Your task to perform on an android device: Go to Amazon Image 0: 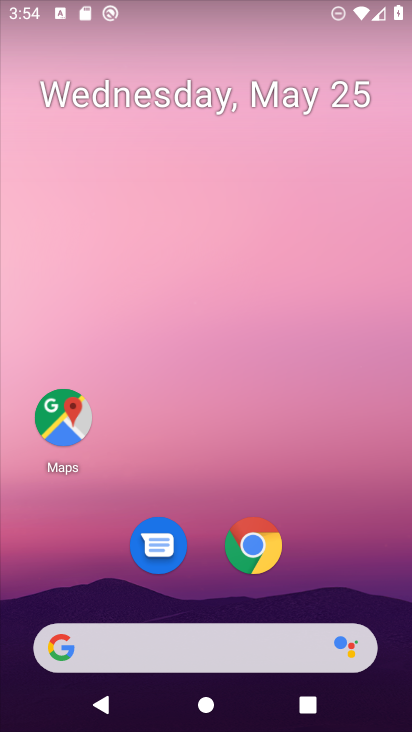
Step 0: drag from (351, 583) to (264, 196)
Your task to perform on an android device: Go to Amazon Image 1: 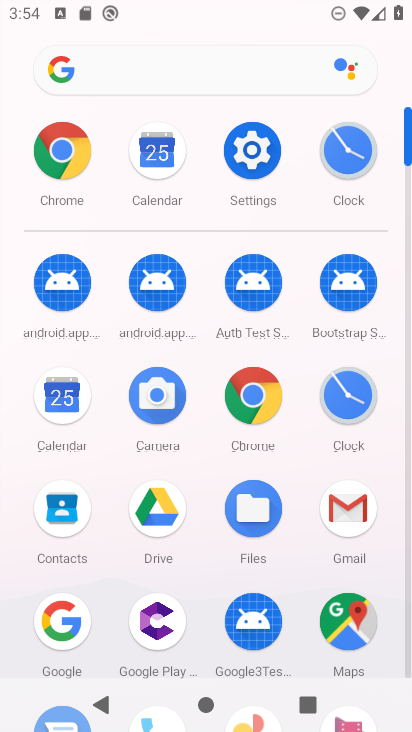
Step 1: click (60, 138)
Your task to perform on an android device: Go to Amazon Image 2: 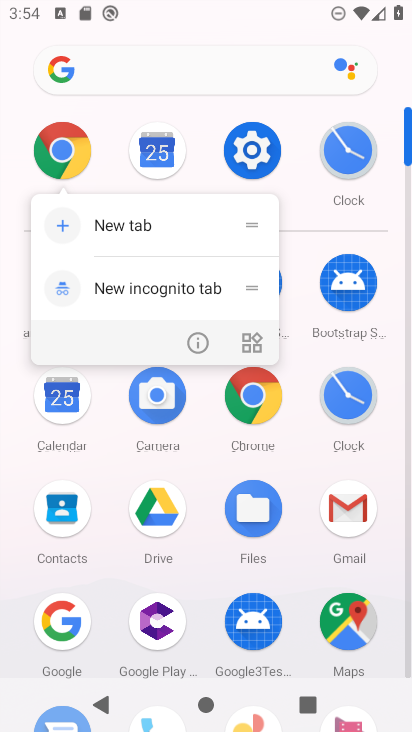
Step 2: click (78, 181)
Your task to perform on an android device: Go to Amazon Image 3: 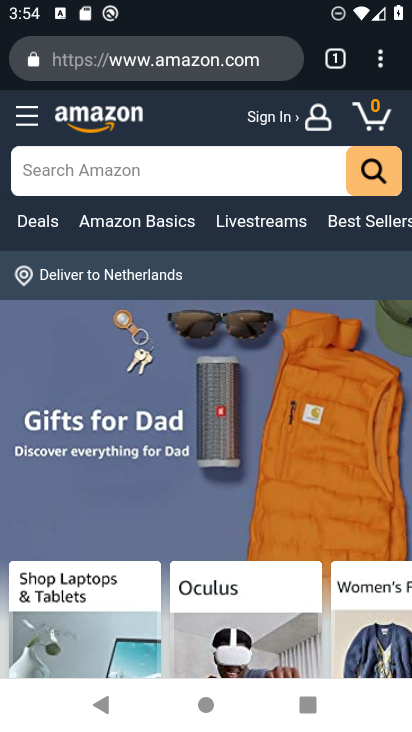
Step 3: task complete